Your task to perform on an android device: turn off improve location accuracy Image 0: 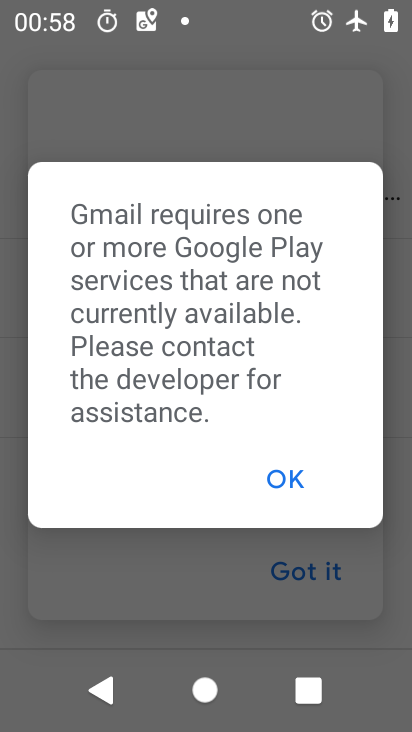
Step 0: press home button
Your task to perform on an android device: turn off improve location accuracy Image 1: 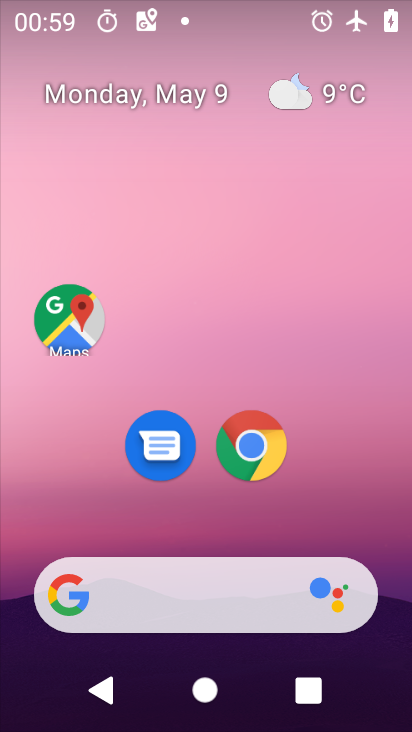
Step 1: drag from (383, 564) to (383, 63)
Your task to perform on an android device: turn off improve location accuracy Image 2: 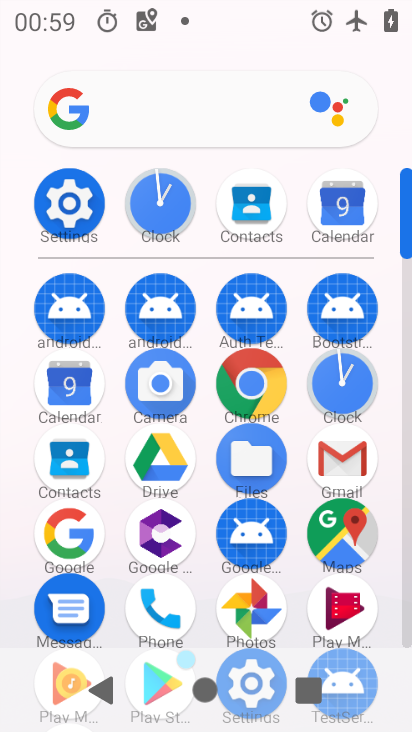
Step 2: click (66, 212)
Your task to perform on an android device: turn off improve location accuracy Image 3: 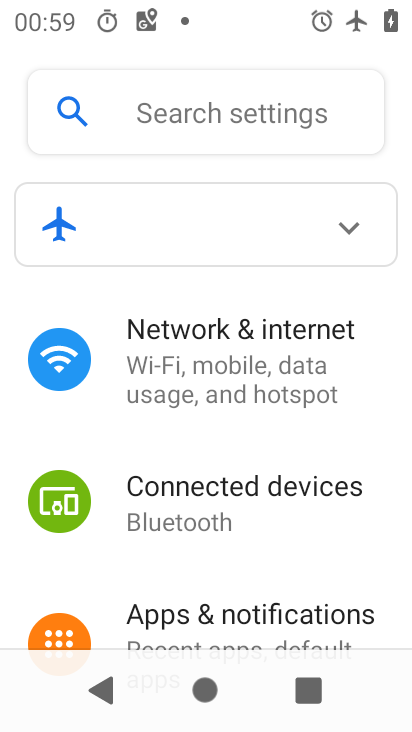
Step 3: drag from (249, 522) to (228, 140)
Your task to perform on an android device: turn off improve location accuracy Image 4: 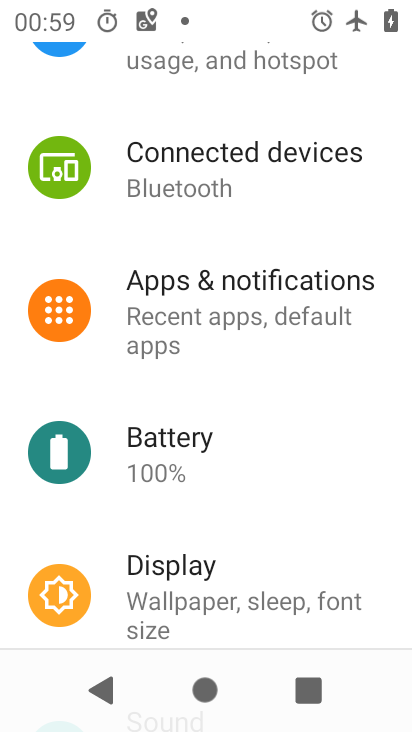
Step 4: drag from (248, 486) to (249, 97)
Your task to perform on an android device: turn off improve location accuracy Image 5: 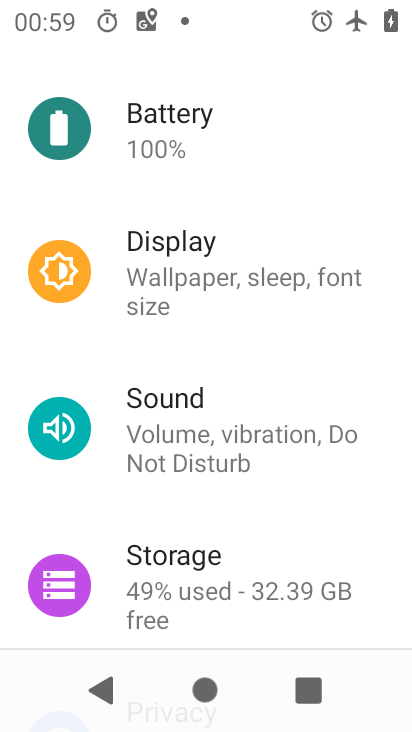
Step 5: drag from (238, 482) to (238, 98)
Your task to perform on an android device: turn off improve location accuracy Image 6: 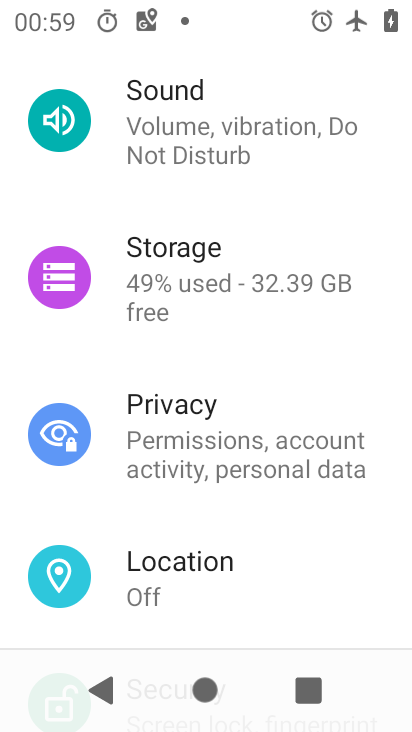
Step 6: click (221, 574)
Your task to perform on an android device: turn off improve location accuracy Image 7: 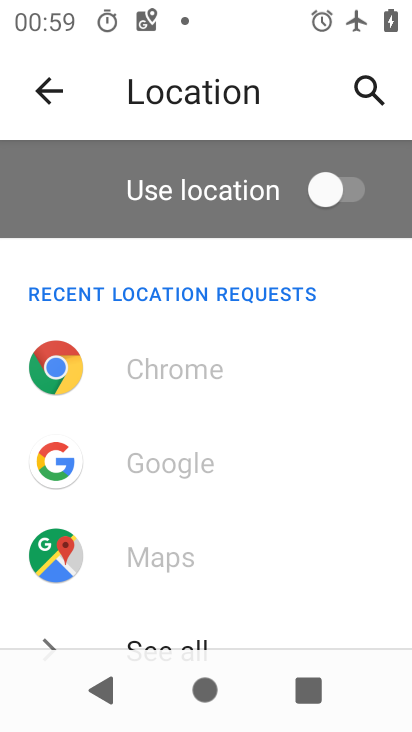
Step 7: drag from (209, 449) to (208, 146)
Your task to perform on an android device: turn off improve location accuracy Image 8: 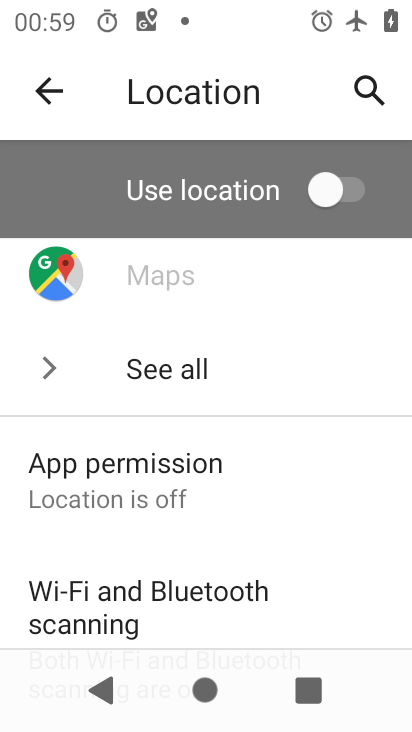
Step 8: drag from (169, 543) to (169, 253)
Your task to perform on an android device: turn off improve location accuracy Image 9: 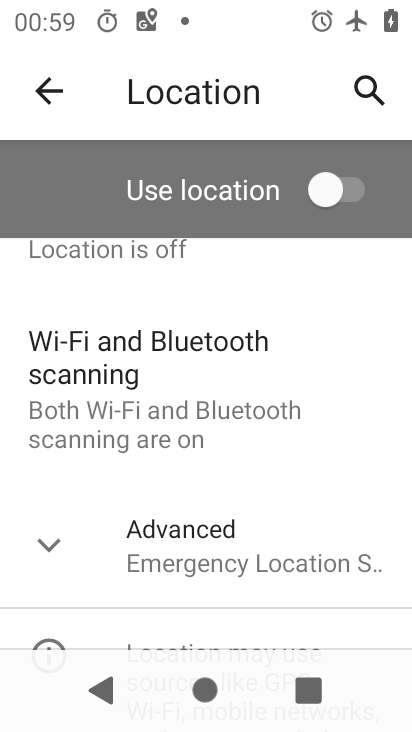
Step 9: click (49, 558)
Your task to perform on an android device: turn off improve location accuracy Image 10: 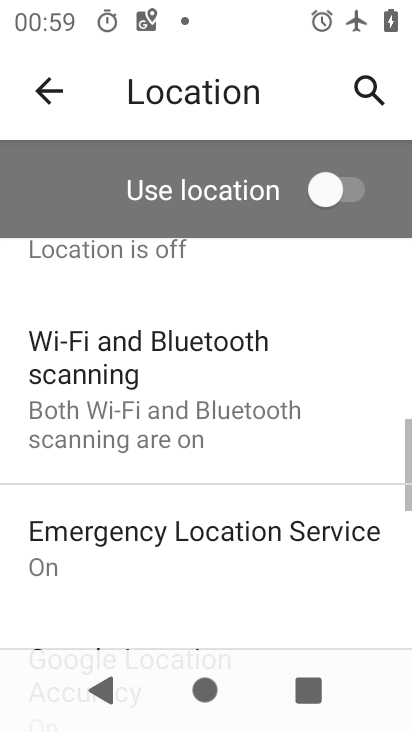
Step 10: drag from (206, 562) to (225, 278)
Your task to perform on an android device: turn off improve location accuracy Image 11: 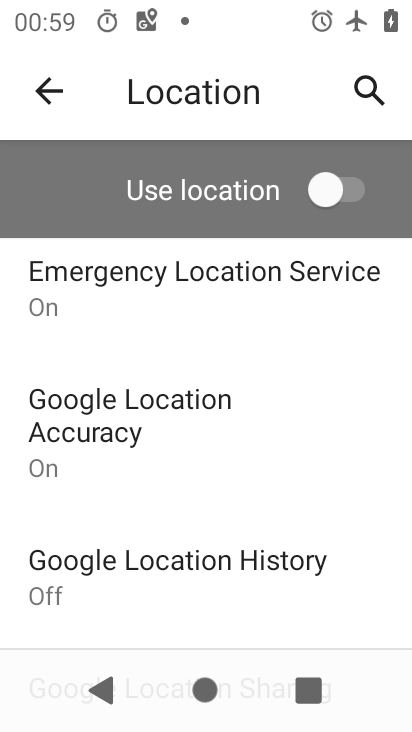
Step 11: click (146, 405)
Your task to perform on an android device: turn off improve location accuracy Image 12: 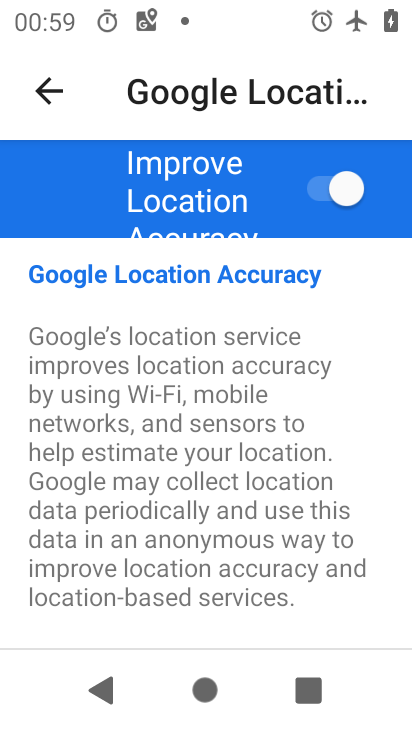
Step 12: click (346, 200)
Your task to perform on an android device: turn off improve location accuracy Image 13: 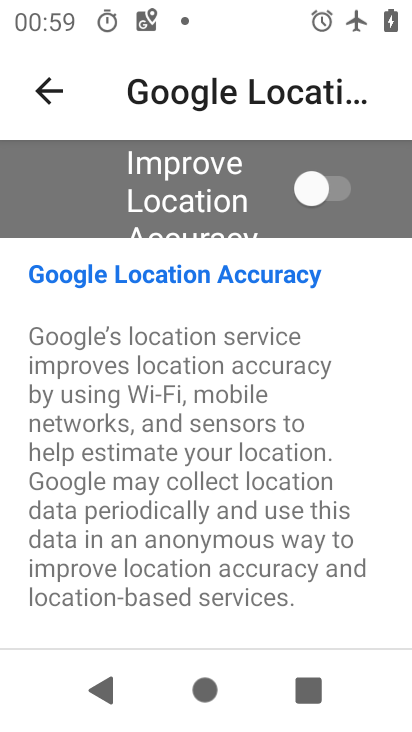
Step 13: task complete